Your task to perform on an android device: Search for flights from NYC to London Image 0: 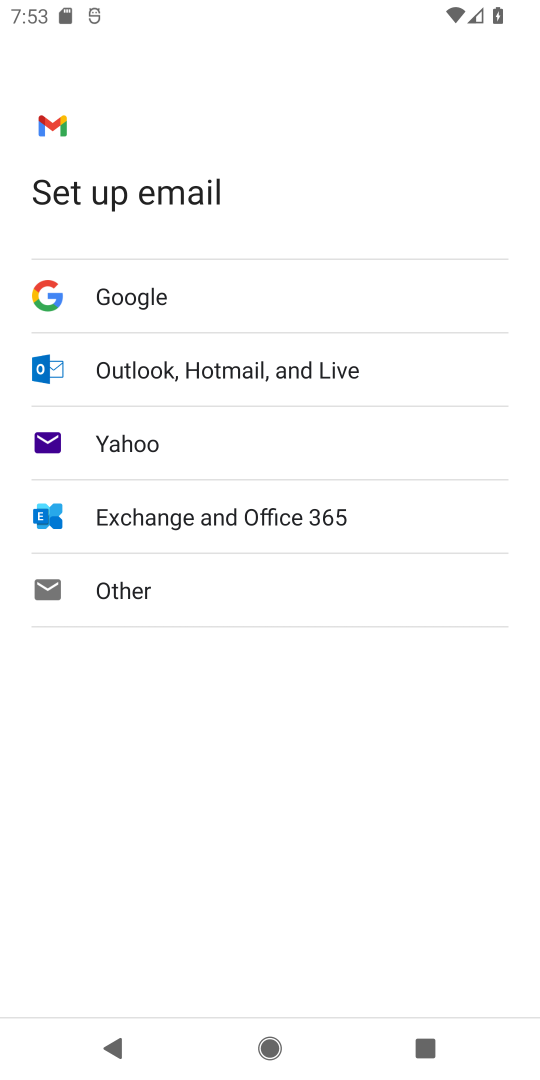
Step 0: press home button
Your task to perform on an android device: Search for flights from NYC to London Image 1: 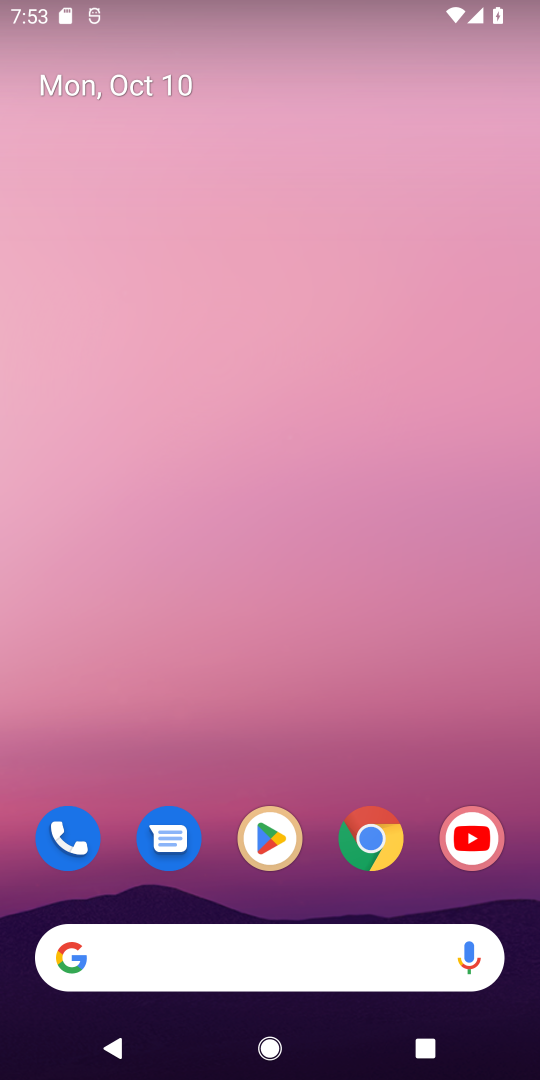
Step 1: click (370, 841)
Your task to perform on an android device: Search for flights from NYC to London Image 2: 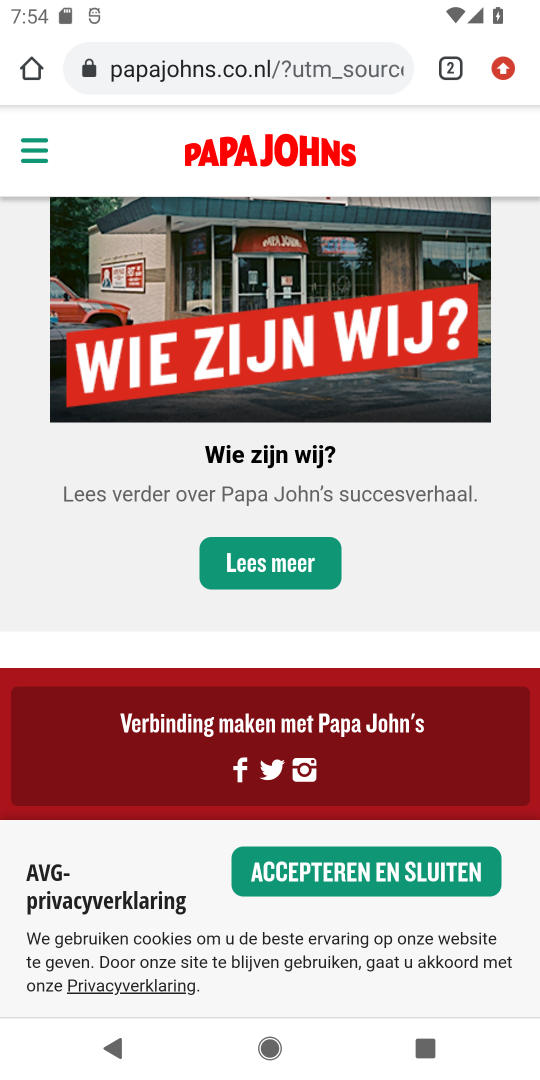
Step 2: click (212, 49)
Your task to perform on an android device: Search for flights from NYC to London Image 3: 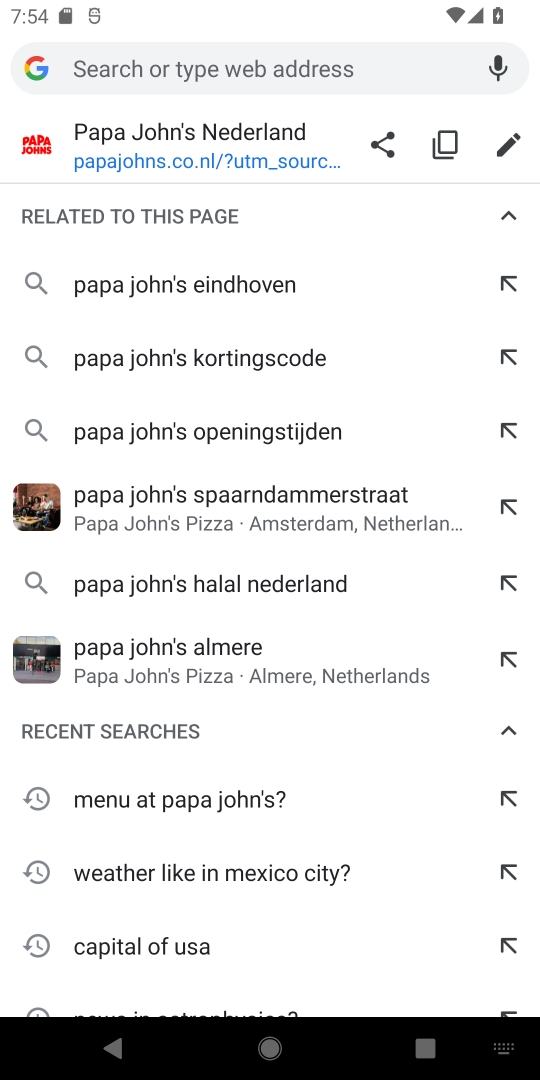
Step 3: type "flights from NYC to london"
Your task to perform on an android device: Search for flights from NYC to London Image 4: 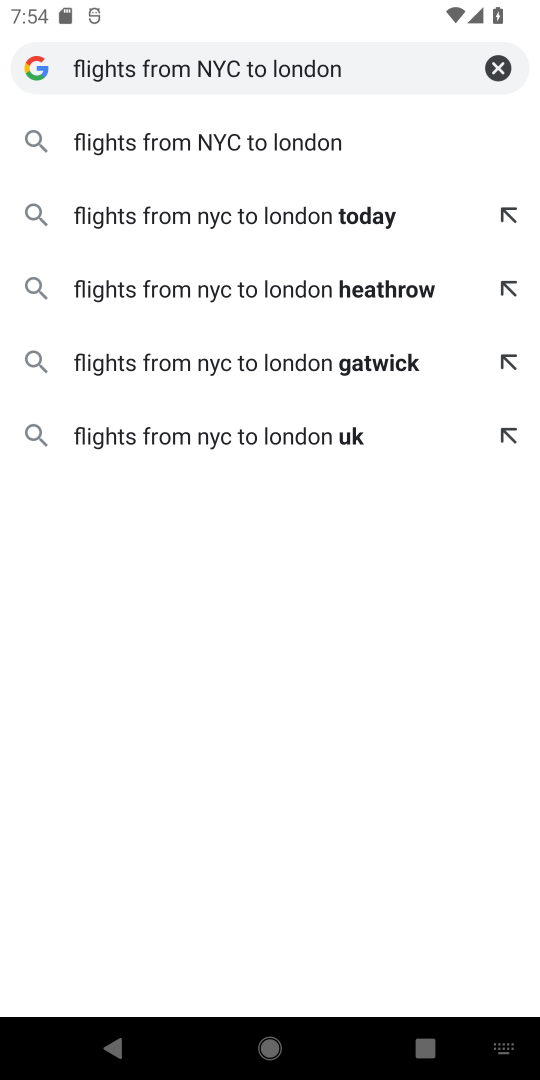
Step 4: click (146, 142)
Your task to perform on an android device: Search for flights from NYC to London Image 5: 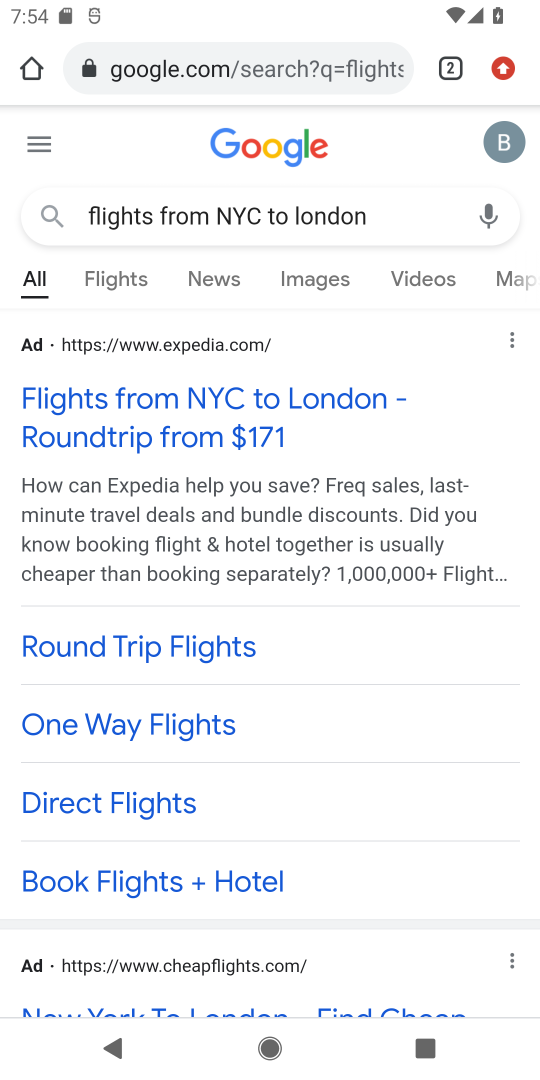
Step 5: click (119, 404)
Your task to perform on an android device: Search for flights from NYC to London Image 6: 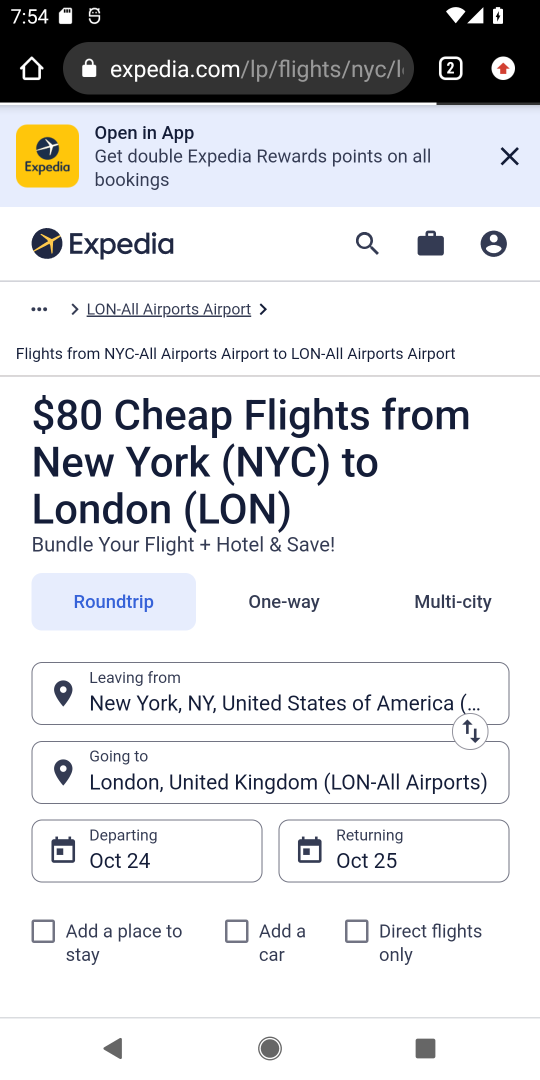
Step 6: drag from (268, 895) to (293, 347)
Your task to perform on an android device: Search for flights from NYC to London Image 7: 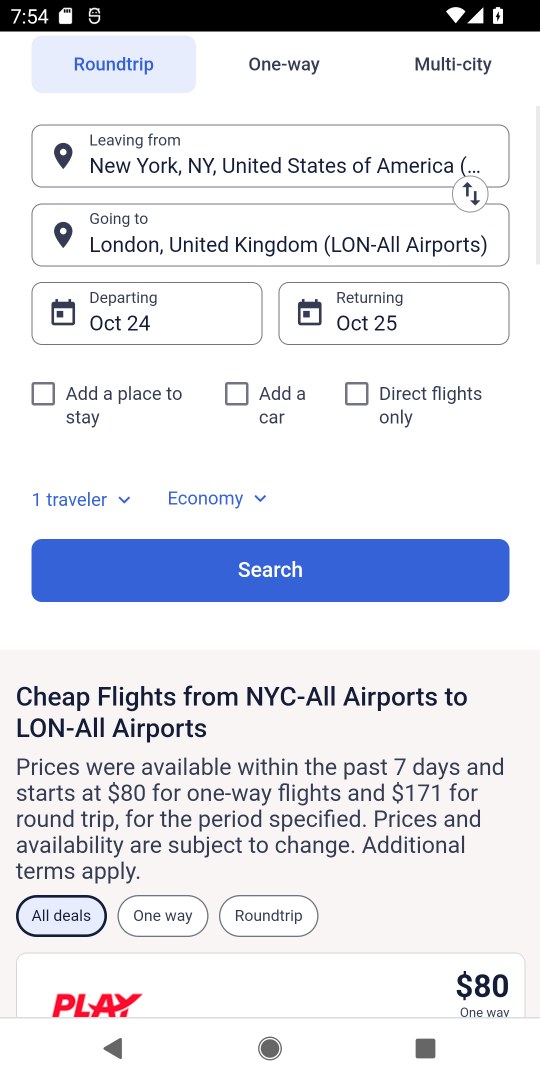
Step 7: click (261, 567)
Your task to perform on an android device: Search for flights from NYC to London Image 8: 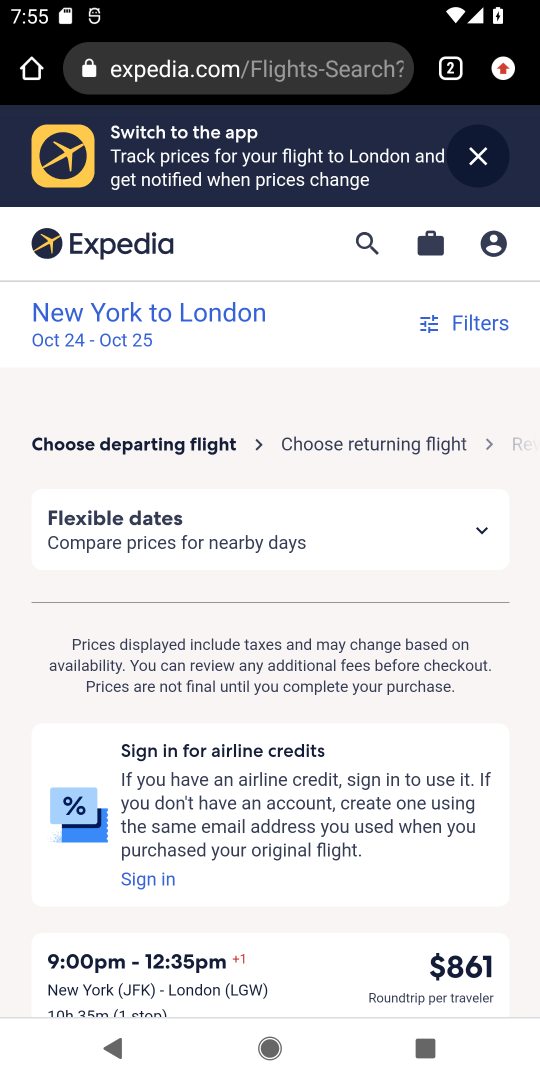
Step 8: task complete